Your task to perform on an android device: Go to Maps Image 0: 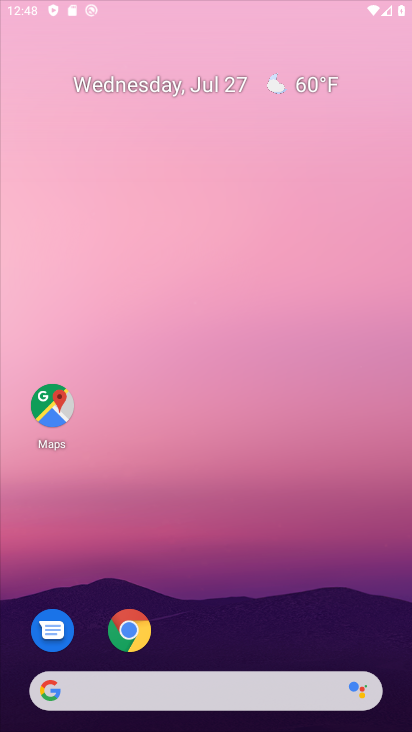
Step 0: press home button
Your task to perform on an android device: Go to Maps Image 1: 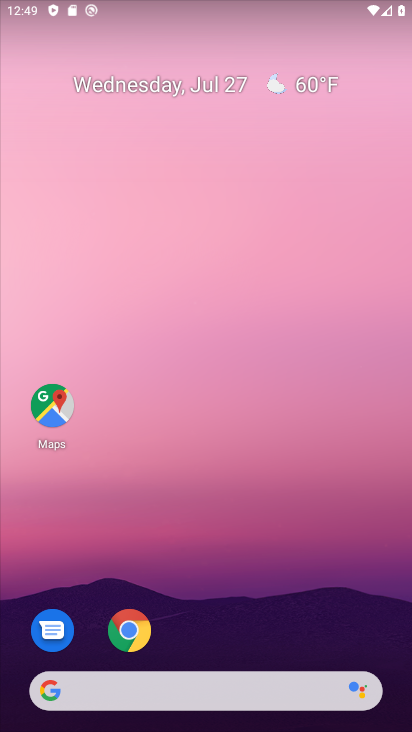
Step 1: drag from (291, 637) to (301, 136)
Your task to perform on an android device: Go to Maps Image 2: 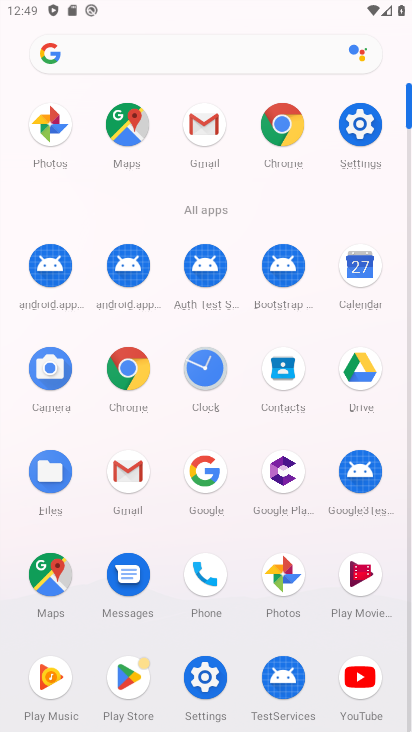
Step 2: click (141, 120)
Your task to perform on an android device: Go to Maps Image 3: 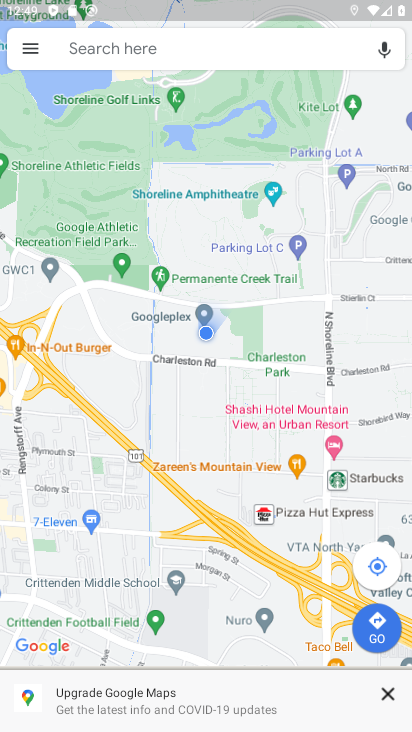
Step 3: task complete